Your task to perform on an android device: toggle translation in the chrome app Image 0: 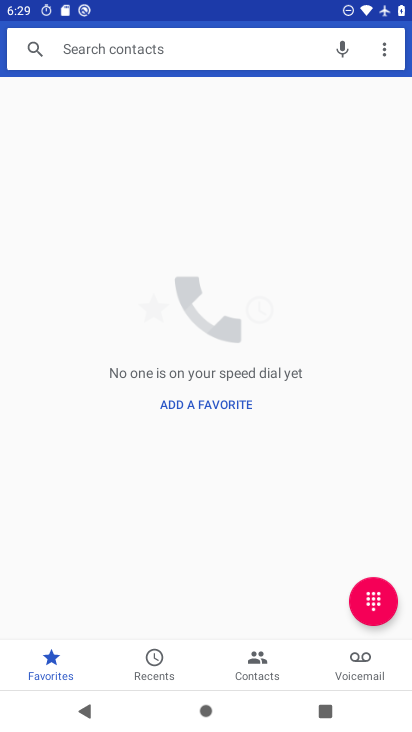
Step 0: press home button
Your task to perform on an android device: toggle translation in the chrome app Image 1: 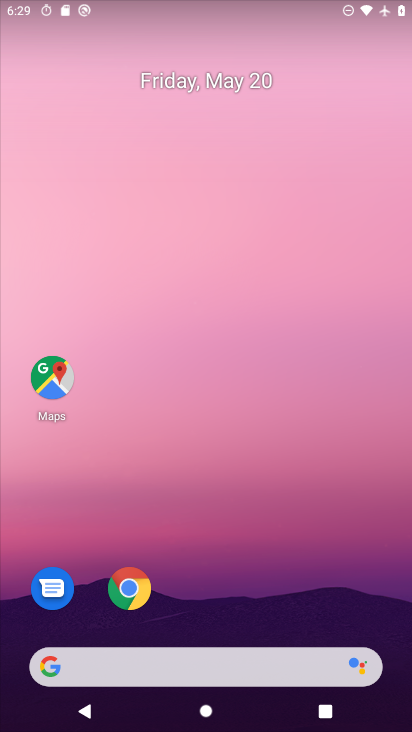
Step 1: click (135, 587)
Your task to perform on an android device: toggle translation in the chrome app Image 2: 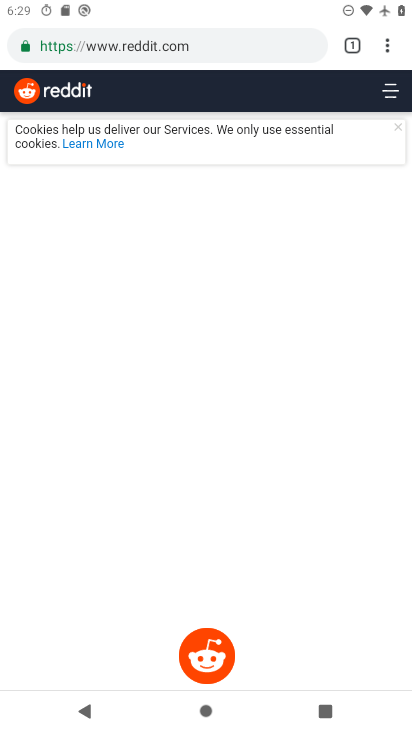
Step 2: click (388, 47)
Your task to perform on an android device: toggle translation in the chrome app Image 3: 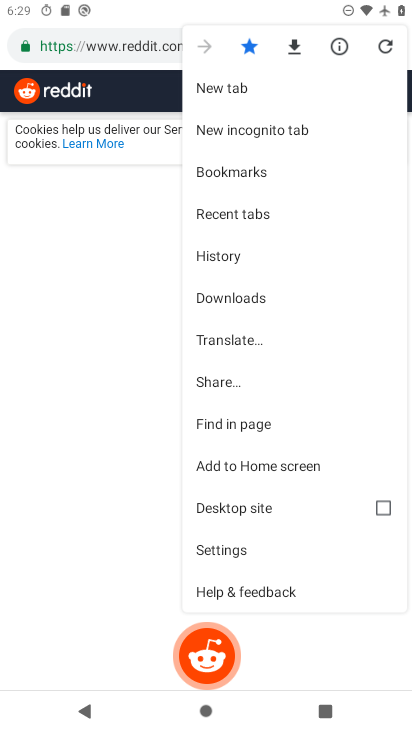
Step 3: click (237, 555)
Your task to perform on an android device: toggle translation in the chrome app Image 4: 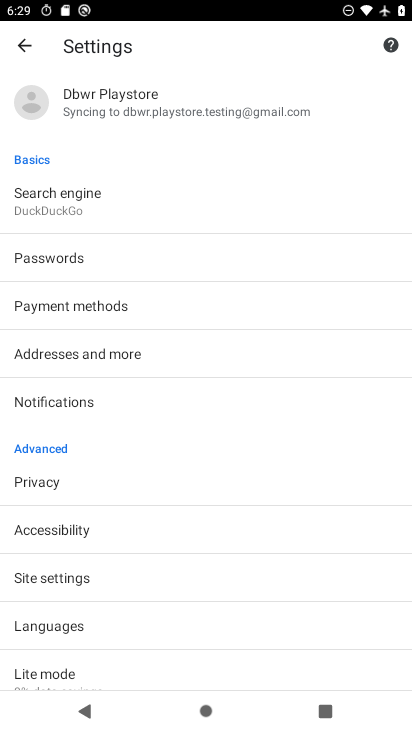
Step 4: click (62, 630)
Your task to perform on an android device: toggle translation in the chrome app Image 5: 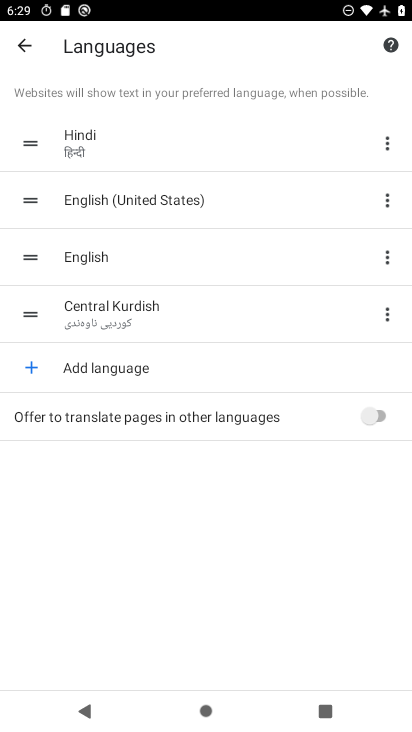
Step 5: click (383, 416)
Your task to perform on an android device: toggle translation in the chrome app Image 6: 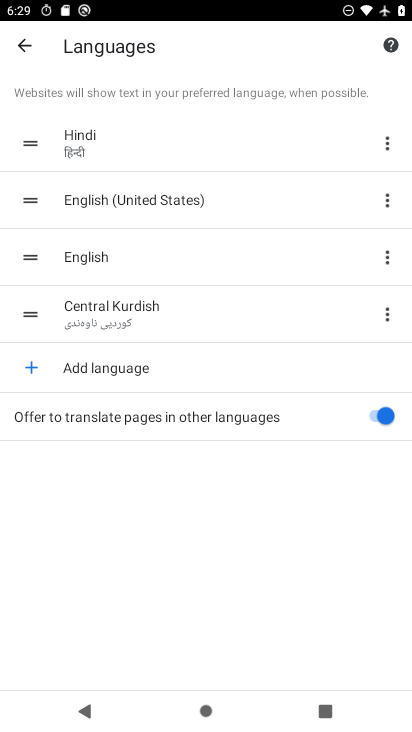
Step 6: task complete